Your task to perform on an android device: Open wifi settings Image 0: 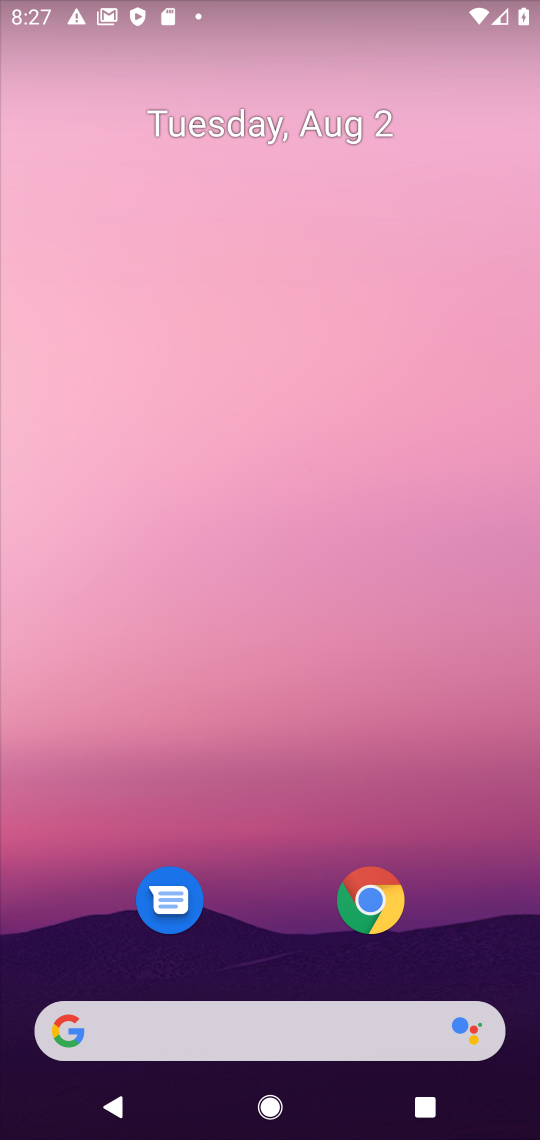
Step 0: drag from (267, 840) to (377, 0)
Your task to perform on an android device: Open wifi settings Image 1: 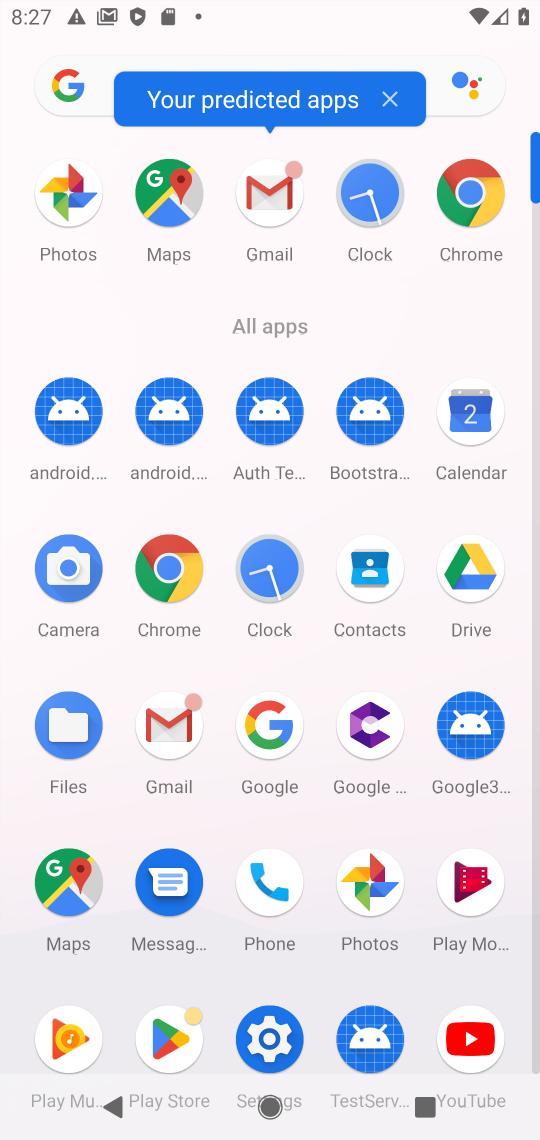
Step 1: click (265, 1043)
Your task to perform on an android device: Open wifi settings Image 2: 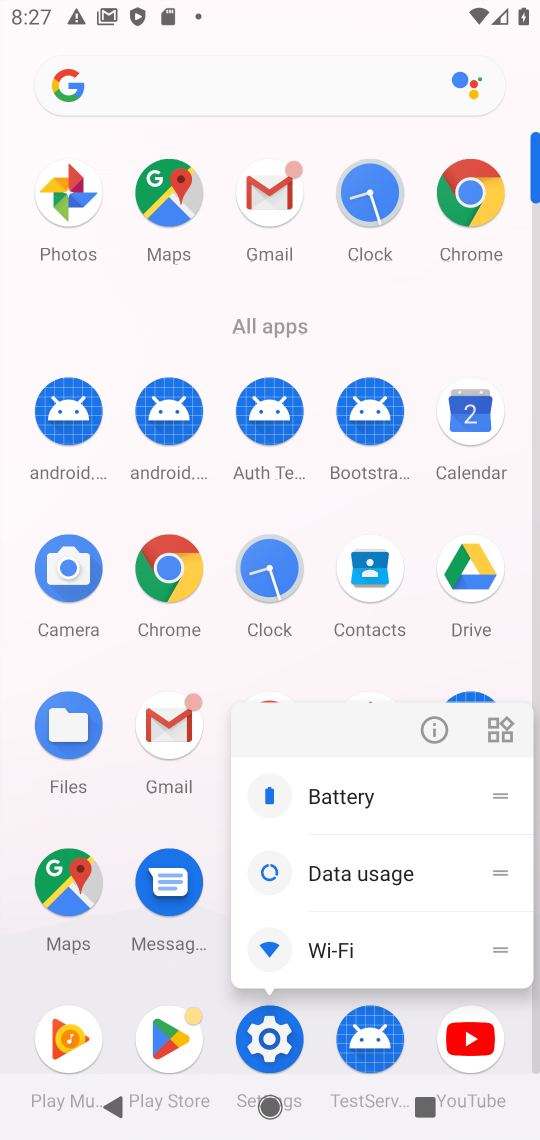
Step 2: click (265, 1036)
Your task to perform on an android device: Open wifi settings Image 3: 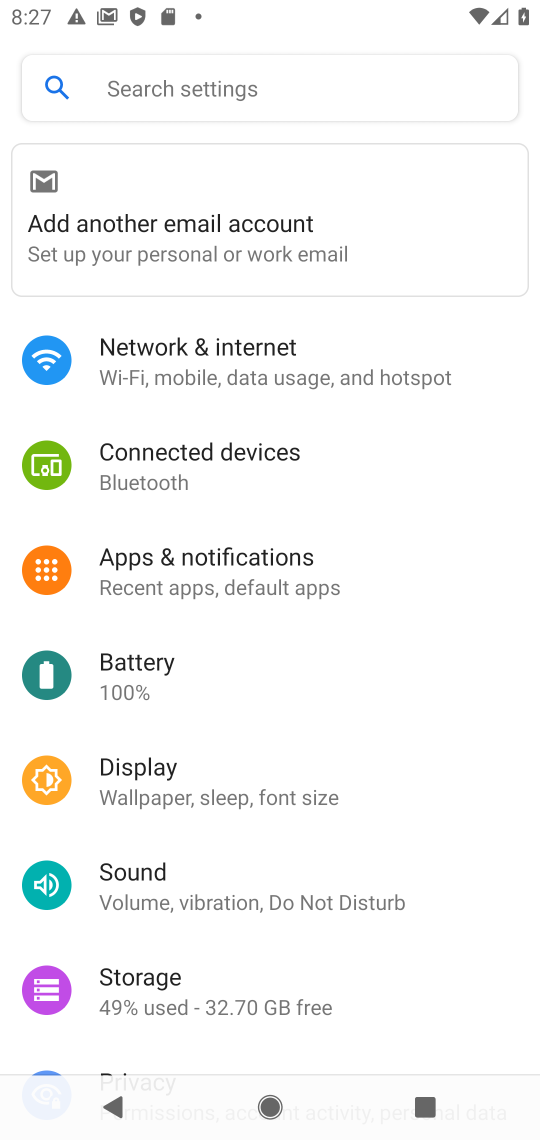
Step 3: click (266, 367)
Your task to perform on an android device: Open wifi settings Image 4: 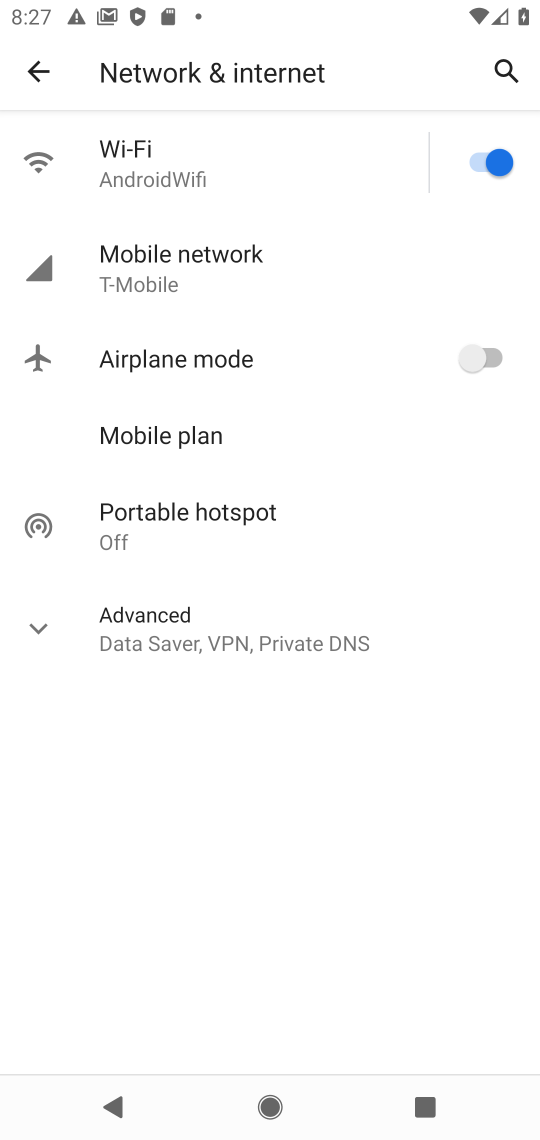
Step 4: click (189, 154)
Your task to perform on an android device: Open wifi settings Image 5: 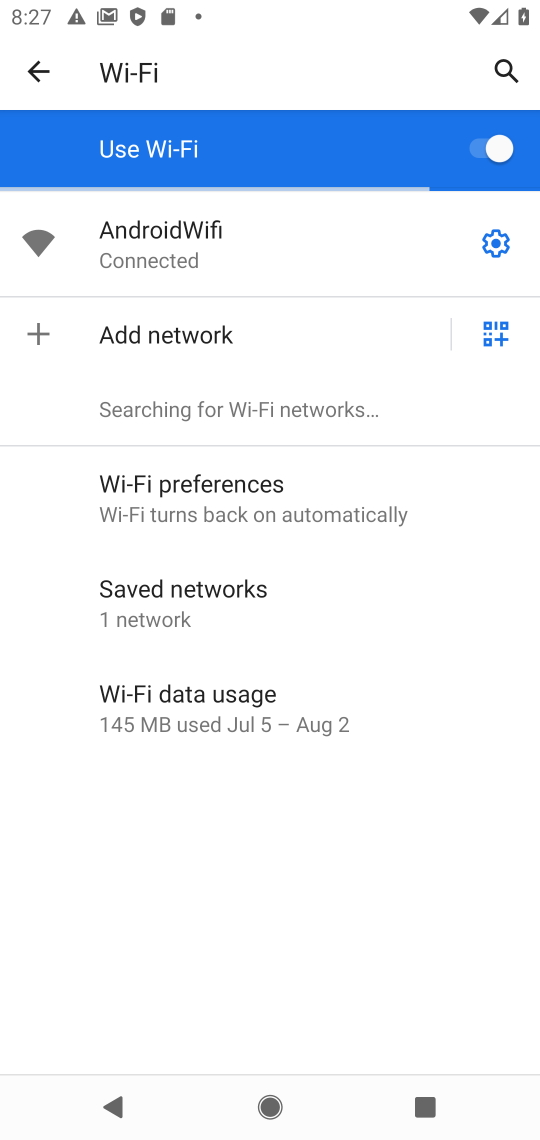
Step 5: task complete